Your task to perform on an android device: visit the assistant section in the google photos Image 0: 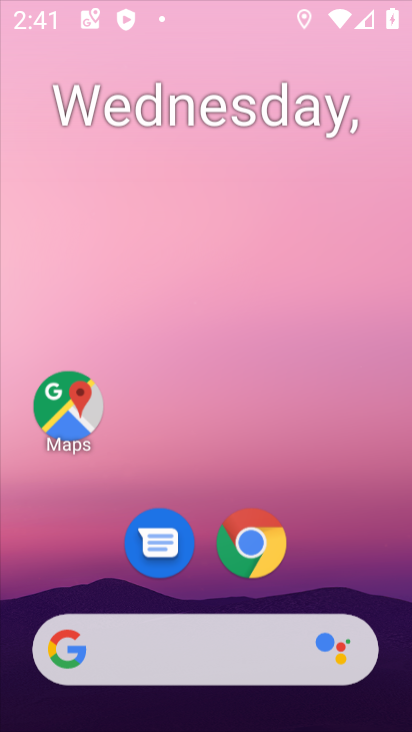
Step 0: drag from (309, 236) to (320, 162)
Your task to perform on an android device: visit the assistant section in the google photos Image 1: 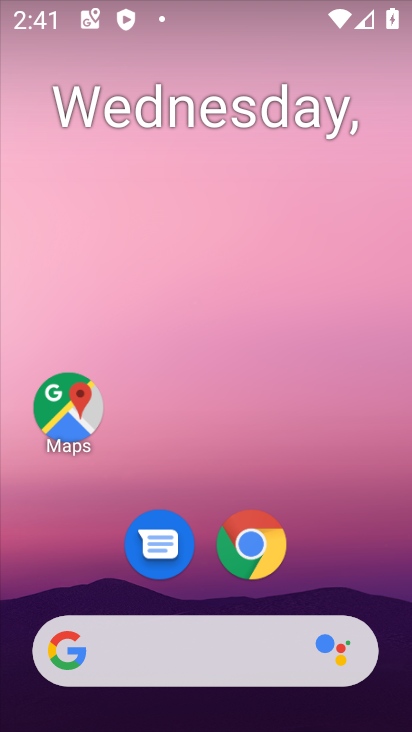
Step 1: drag from (366, 546) to (347, 15)
Your task to perform on an android device: visit the assistant section in the google photos Image 2: 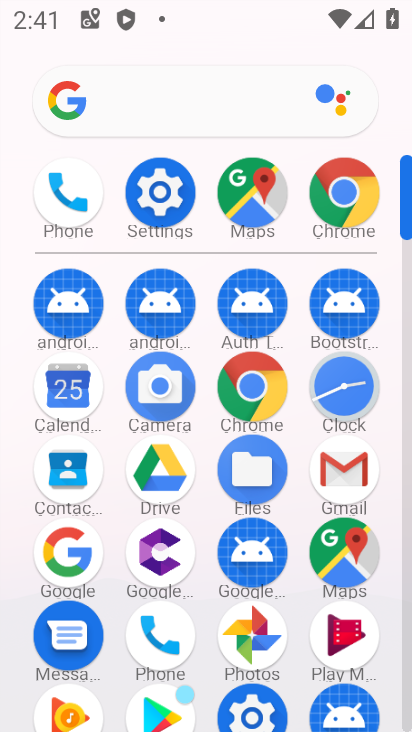
Step 2: click (234, 626)
Your task to perform on an android device: visit the assistant section in the google photos Image 3: 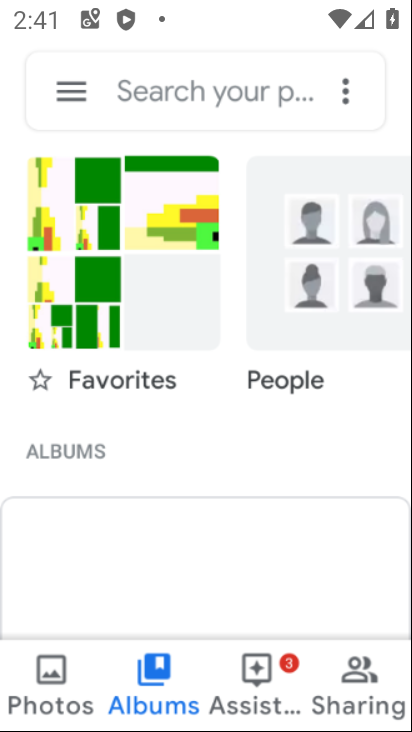
Step 3: click (253, 654)
Your task to perform on an android device: visit the assistant section in the google photos Image 4: 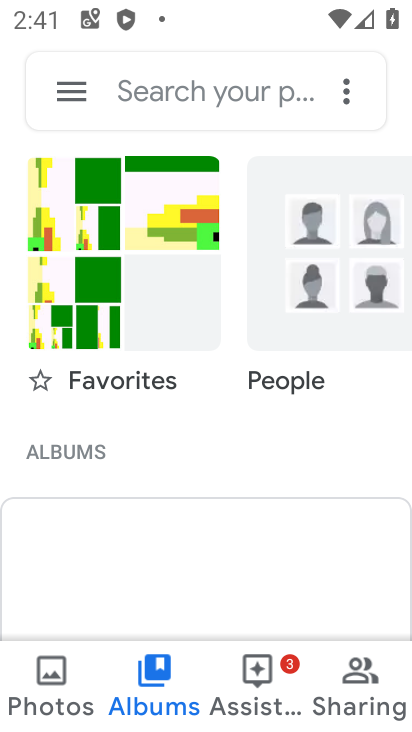
Step 4: click (255, 669)
Your task to perform on an android device: visit the assistant section in the google photos Image 5: 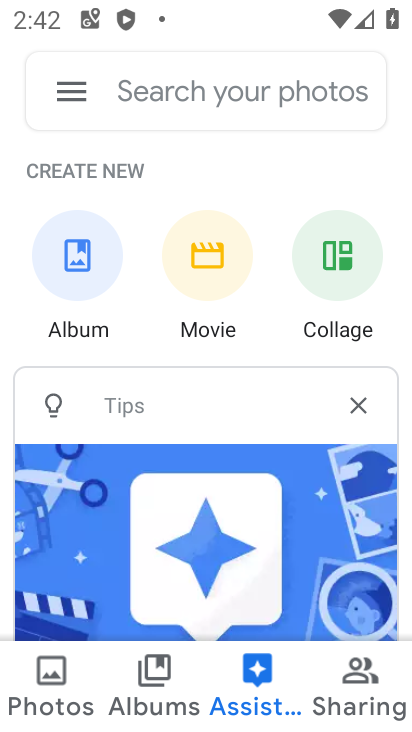
Step 5: task complete